Your task to perform on an android device: Open Google Image 0: 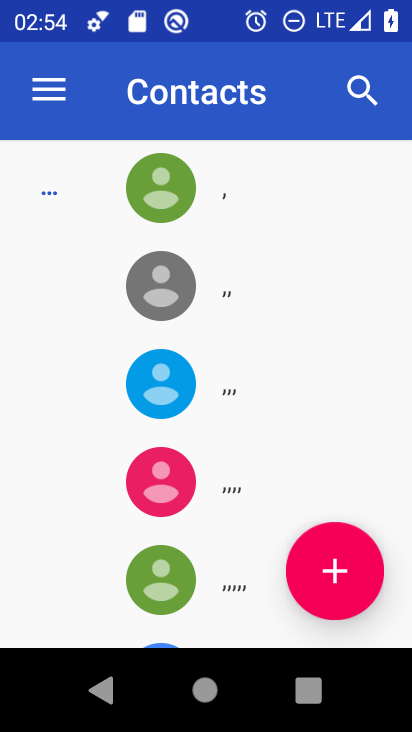
Step 0: press home button
Your task to perform on an android device: Open Google Image 1: 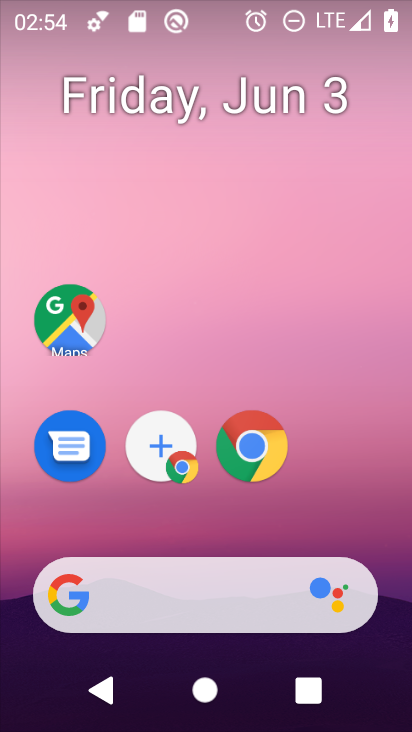
Step 1: drag from (159, 698) to (270, 1)
Your task to perform on an android device: Open Google Image 2: 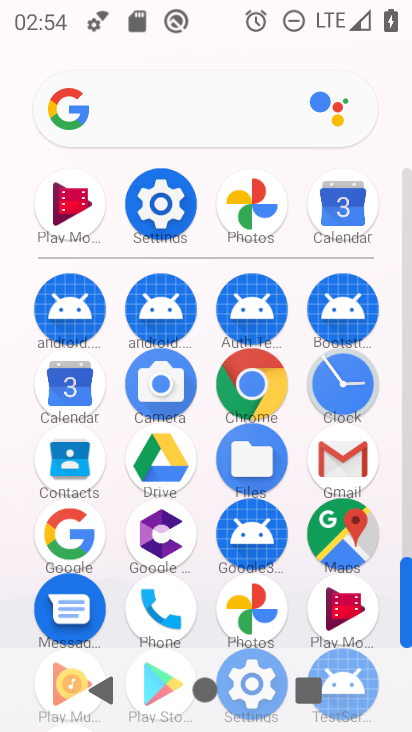
Step 2: click (44, 542)
Your task to perform on an android device: Open Google Image 3: 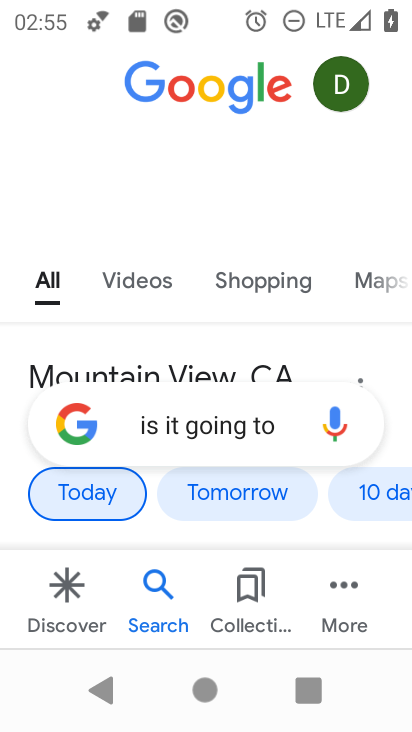
Step 3: task complete